Your task to perform on an android device: check android version Image 0: 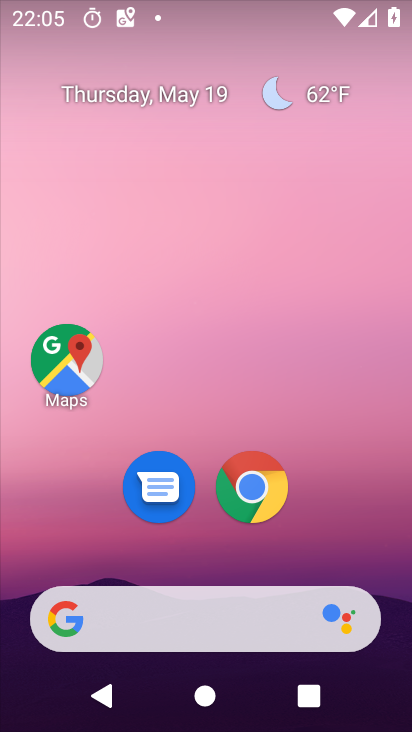
Step 0: drag from (326, 543) to (269, 152)
Your task to perform on an android device: check android version Image 1: 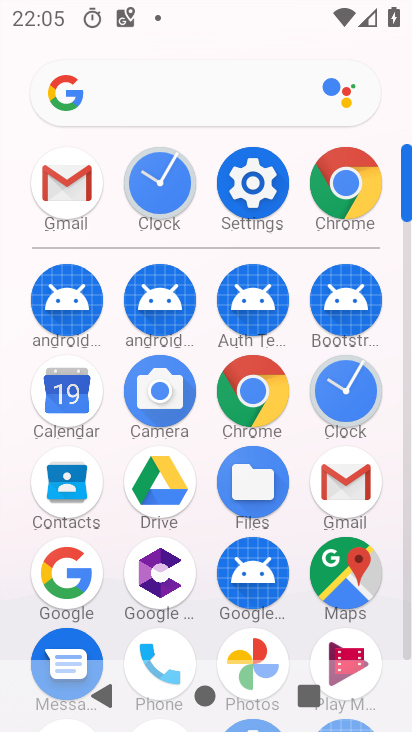
Step 1: click (257, 180)
Your task to perform on an android device: check android version Image 2: 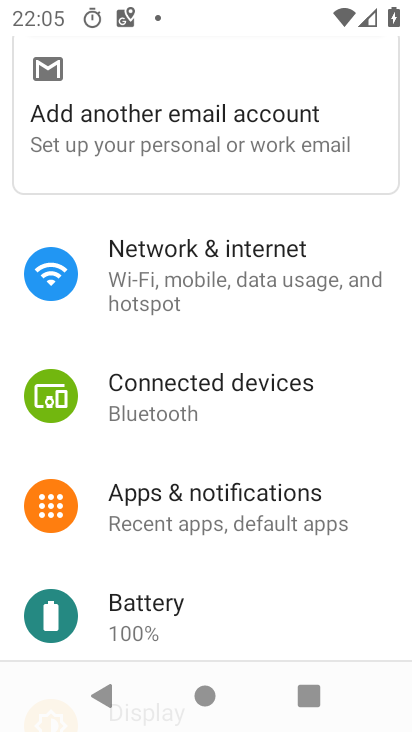
Step 2: drag from (281, 578) to (252, 205)
Your task to perform on an android device: check android version Image 3: 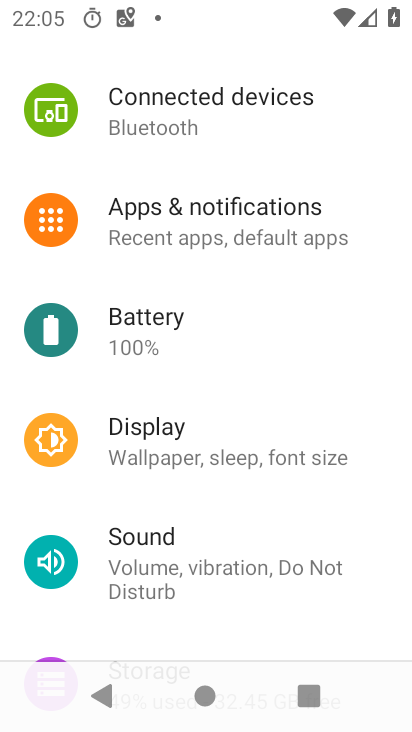
Step 3: drag from (272, 605) to (245, 240)
Your task to perform on an android device: check android version Image 4: 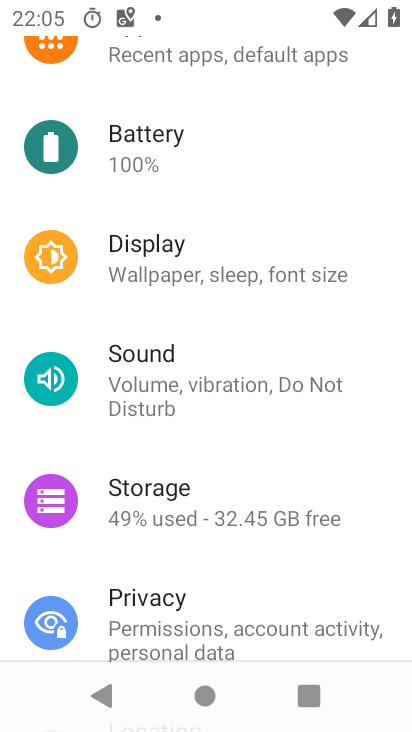
Step 4: drag from (264, 596) to (264, 221)
Your task to perform on an android device: check android version Image 5: 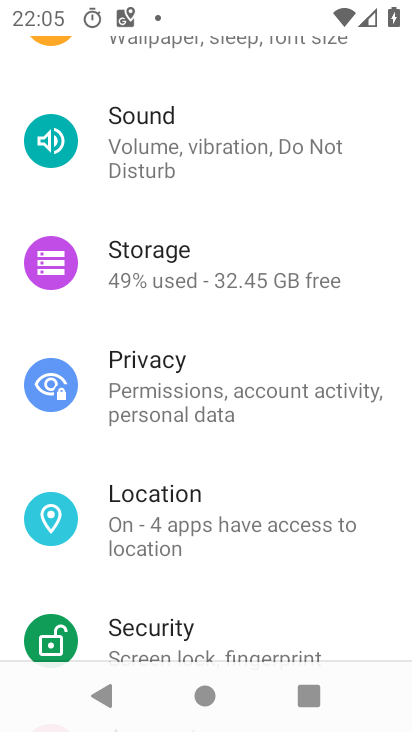
Step 5: drag from (285, 598) to (277, 268)
Your task to perform on an android device: check android version Image 6: 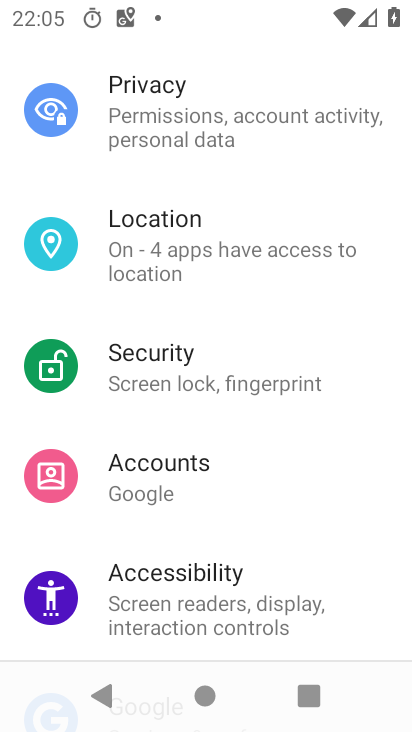
Step 6: drag from (301, 540) to (271, 187)
Your task to perform on an android device: check android version Image 7: 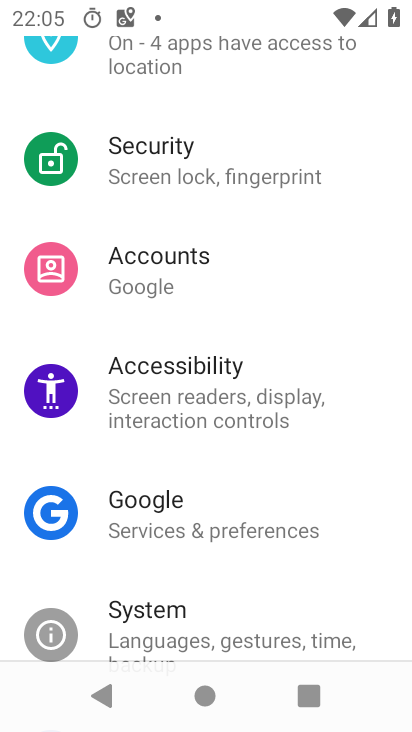
Step 7: drag from (289, 559) to (302, 182)
Your task to perform on an android device: check android version Image 8: 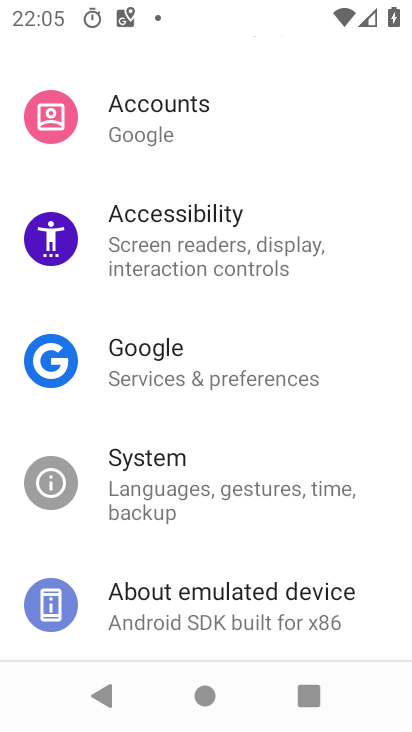
Step 8: click (268, 595)
Your task to perform on an android device: check android version Image 9: 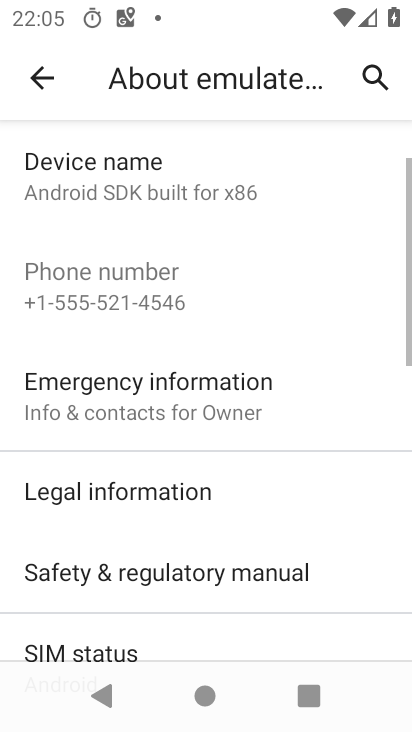
Step 9: drag from (268, 512) to (267, 140)
Your task to perform on an android device: check android version Image 10: 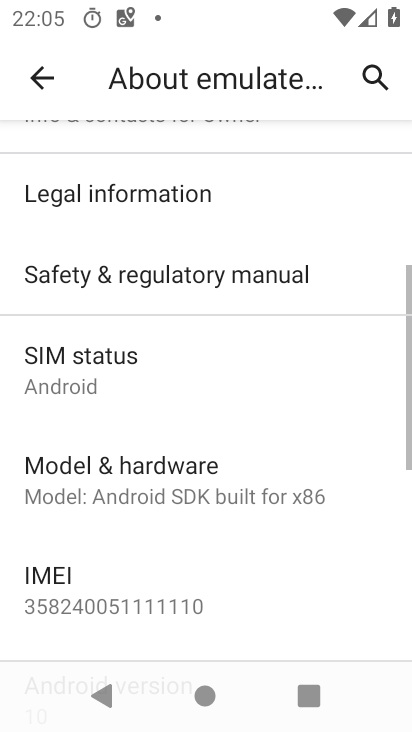
Step 10: drag from (291, 587) to (290, 248)
Your task to perform on an android device: check android version Image 11: 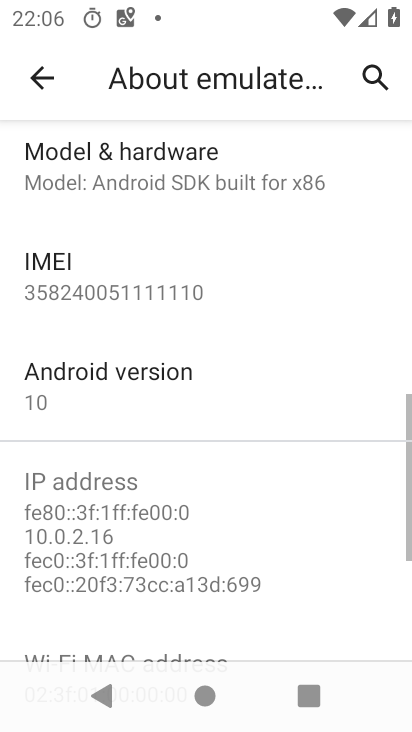
Step 11: click (162, 410)
Your task to perform on an android device: check android version Image 12: 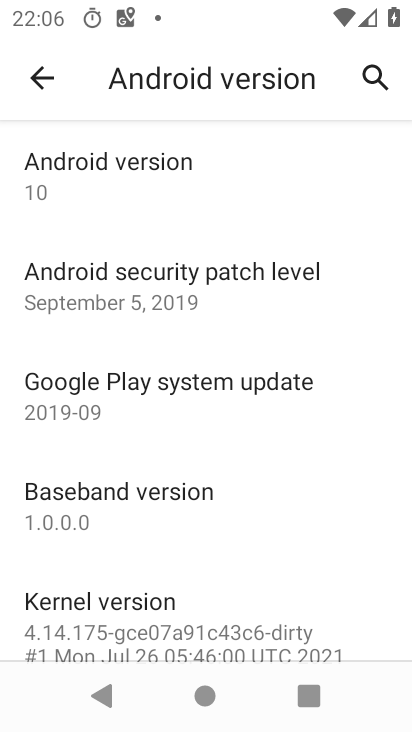
Step 12: task complete